Your task to perform on an android device: toggle improve location accuracy Image 0: 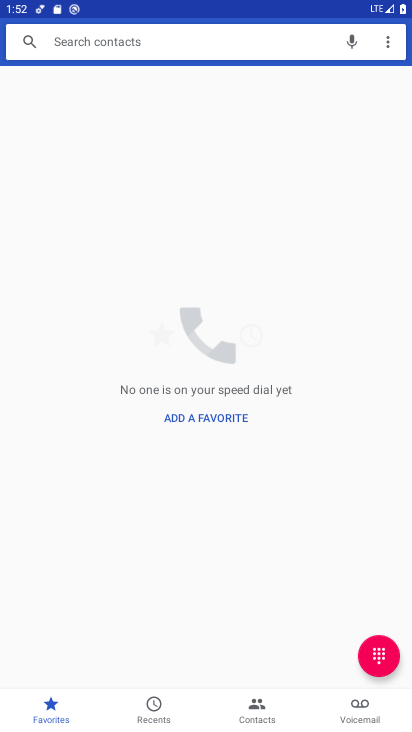
Step 0: press home button
Your task to perform on an android device: toggle improve location accuracy Image 1: 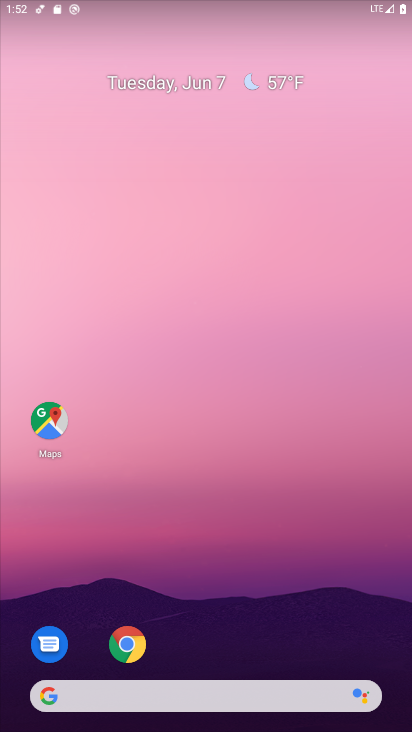
Step 1: drag from (268, 655) to (270, 33)
Your task to perform on an android device: toggle improve location accuracy Image 2: 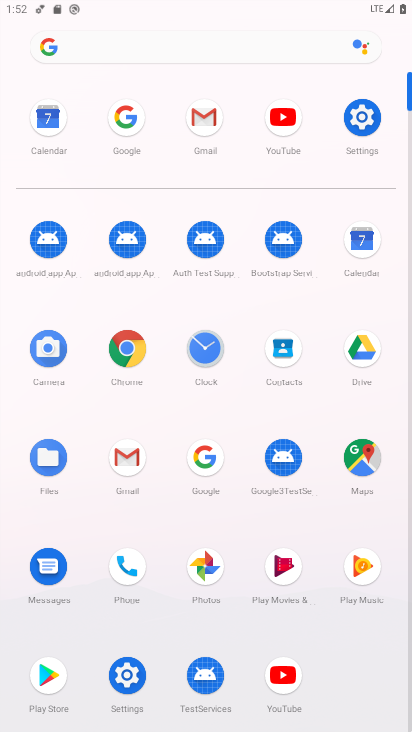
Step 2: click (121, 666)
Your task to perform on an android device: toggle improve location accuracy Image 3: 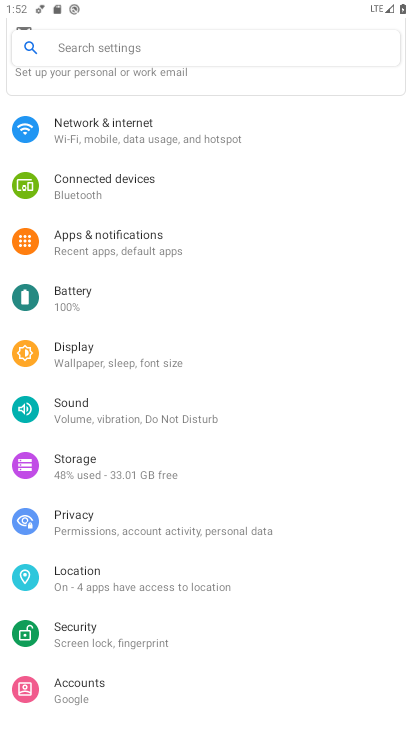
Step 3: click (113, 568)
Your task to perform on an android device: toggle improve location accuracy Image 4: 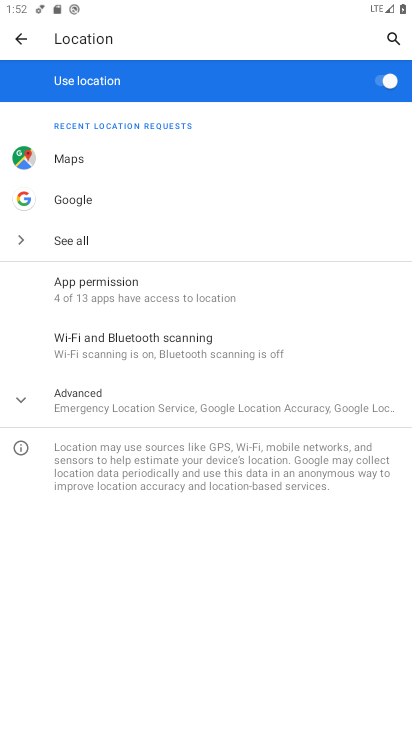
Step 4: click (83, 395)
Your task to perform on an android device: toggle improve location accuracy Image 5: 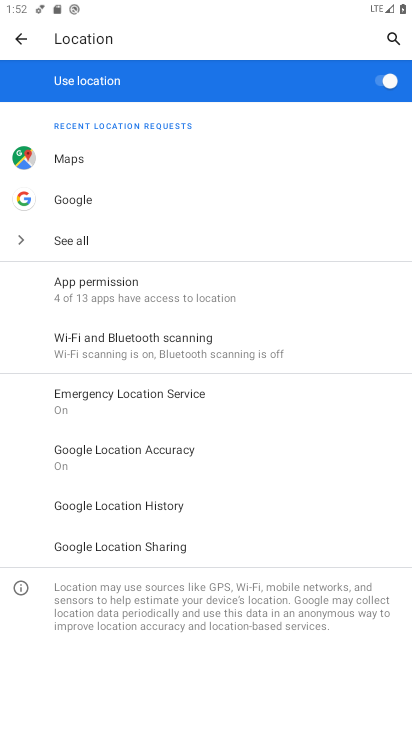
Step 5: click (150, 450)
Your task to perform on an android device: toggle improve location accuracy Image 6: 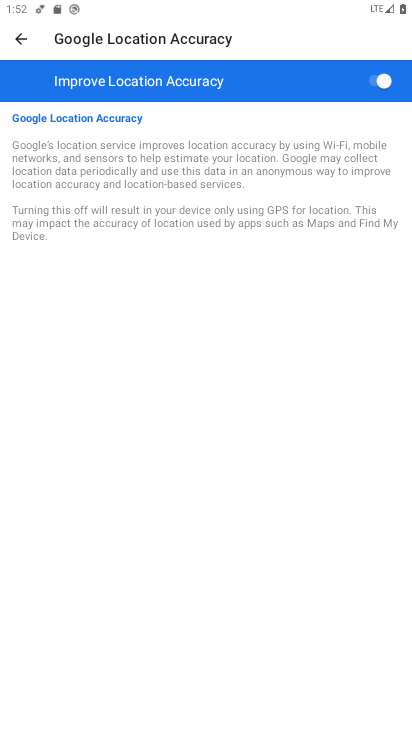
Step 6: click (378, 87)
Your task to perform on an android device: toggle improve location accuracy Image 7: 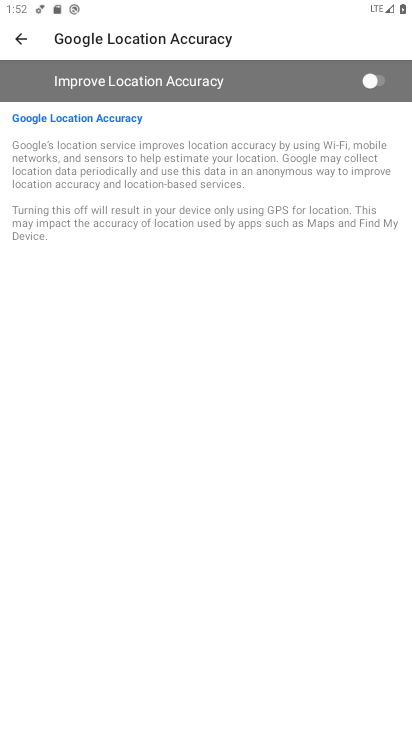
Step 7: task complete